Your task to perform on an android device: turn off translation in the chrome app Image 0: 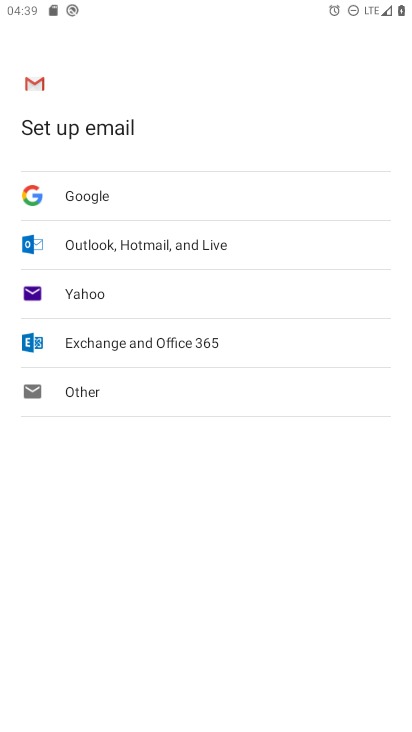
Step 0: press back button
Your task to perform on an android device: turn off translation in the chrome app Image 1: 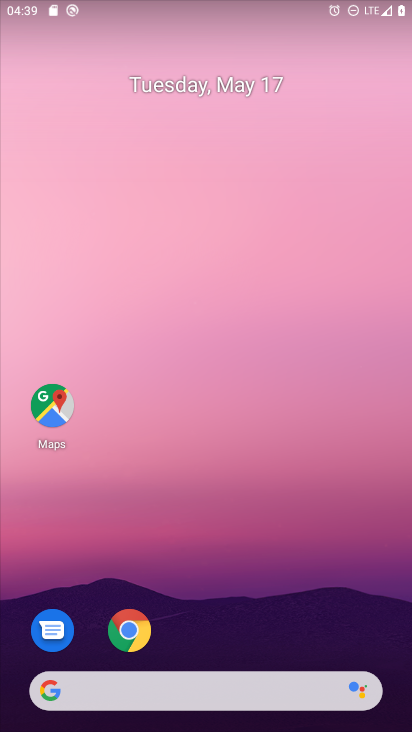
Step 1: drag from (226, 618) to (265, 154)
Your task to perform on an android device: turn off translation in the chrome app Image 2: 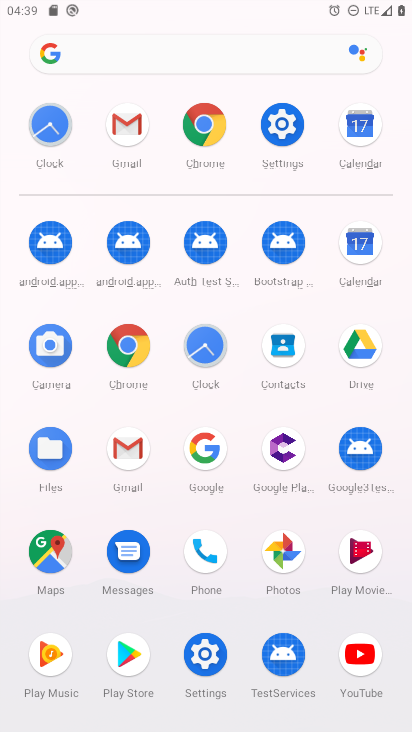
Step 2: click (205, 130)
Your task to perform on an android device: turn off translation in the chrome app Image 3: 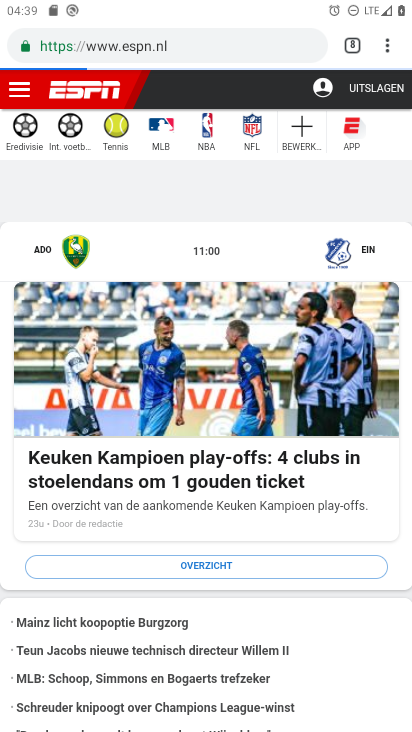
Step 3: drag from (383, 39) to (217, 504)
Your task to perform on an android device: turn off translation in the chrome app Image 4: 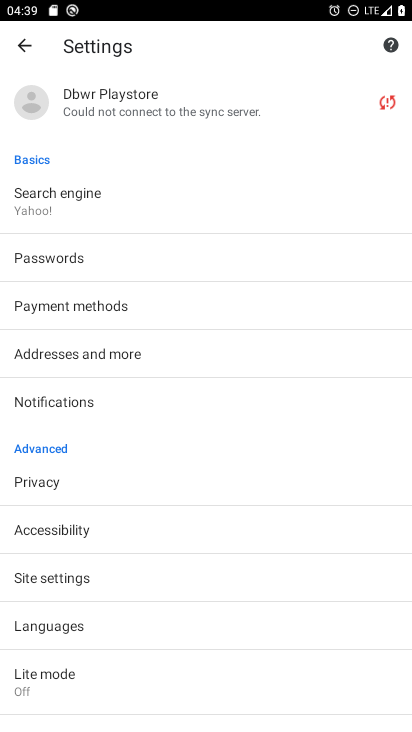
Step 4: click (47, 625)
Your task to perform on an android device: turn off translation in the chrome app Image 5: 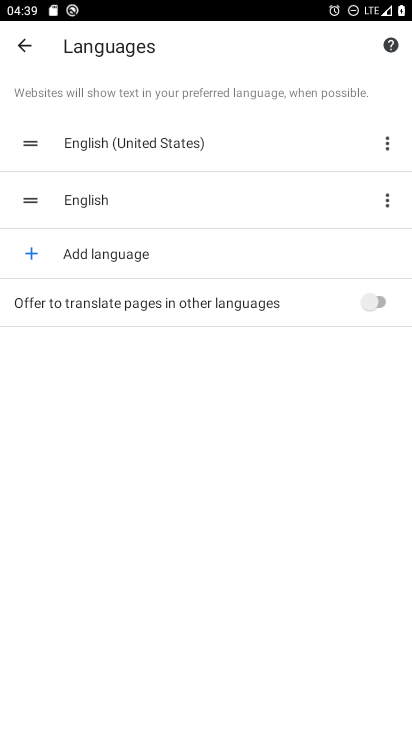
Step 5: task complete